Your task to perform on an android device: Open Yahoo.com Image 0: 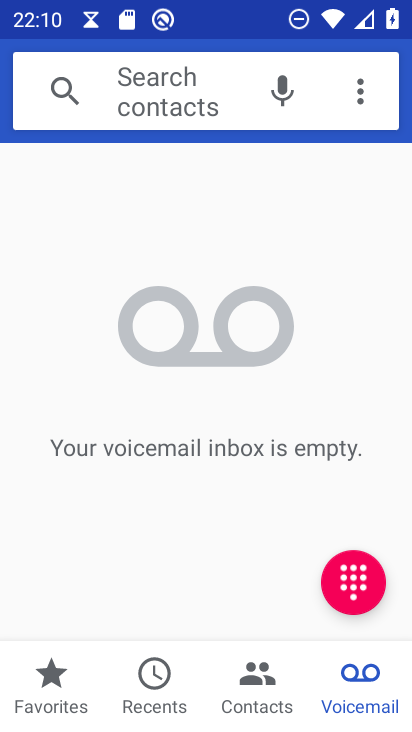
Step 0: press home button
Your task to perform on an android device: Open Yahoo.com Image 1: 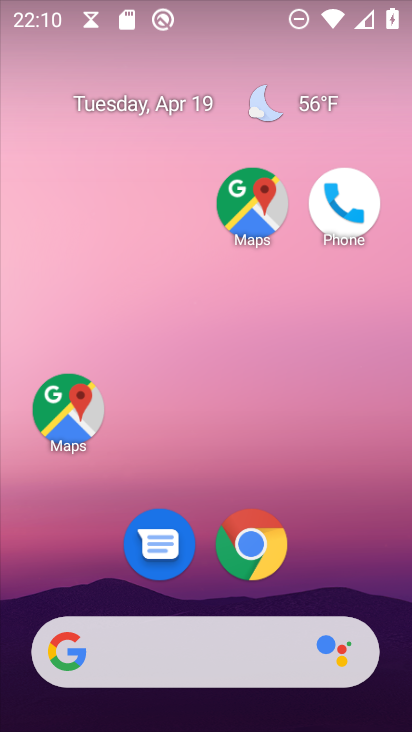
Step 1: drag from (183, 637) to (355, 41)
Your task to perform on an android device: Open Yahoo.com Image 2: 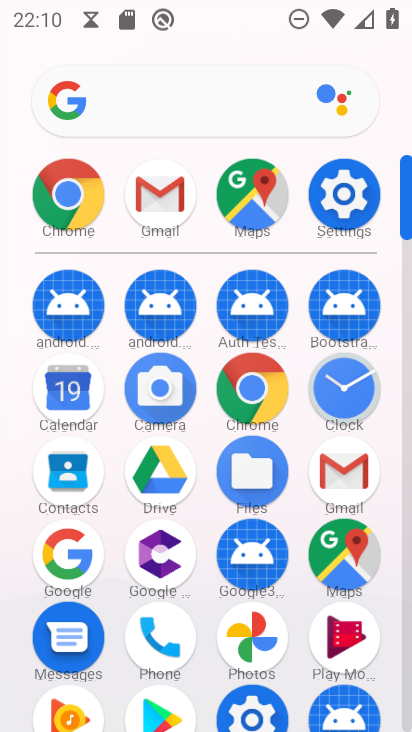
Step 2: click (65, 208)
Your task to perform on an android device: Open Yahoo.com Image 3: 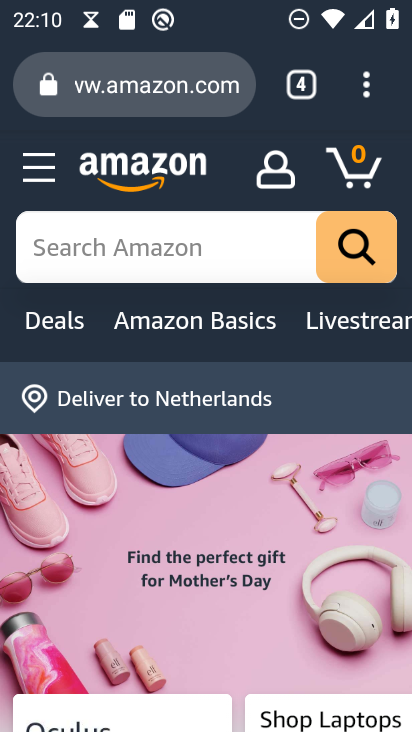
Step 3: click (367, 90)
Your task to perform on an android device: Open Yahoo.com Image 4: 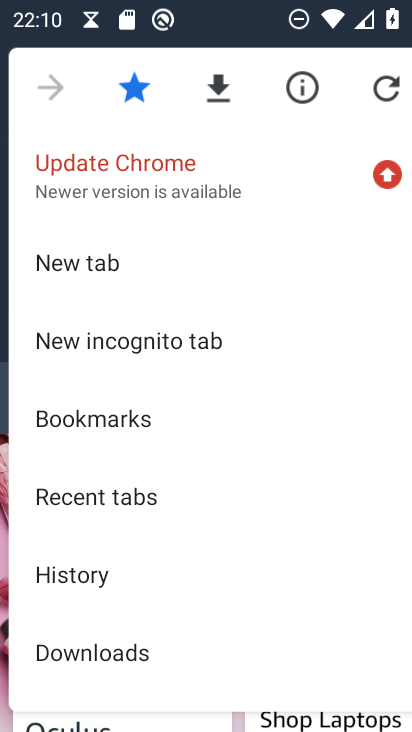
Step 4: click (101, 264)
Your task to perform on an android device: Open Yahoo.com Image 5: 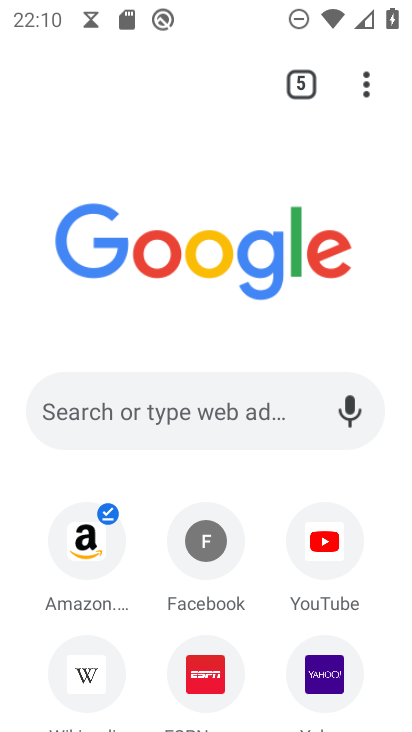
Step 5: drag from (119, 597) to (294, 96)
Your task to perform on an android device: Open Yahoo.com Image 6: 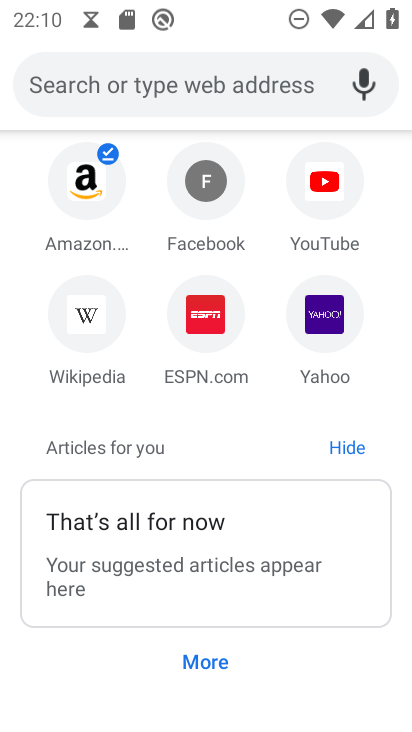
Step 6: click (324, 324)
Your task to perform on an android device: Open Yahoo.com Image 7: 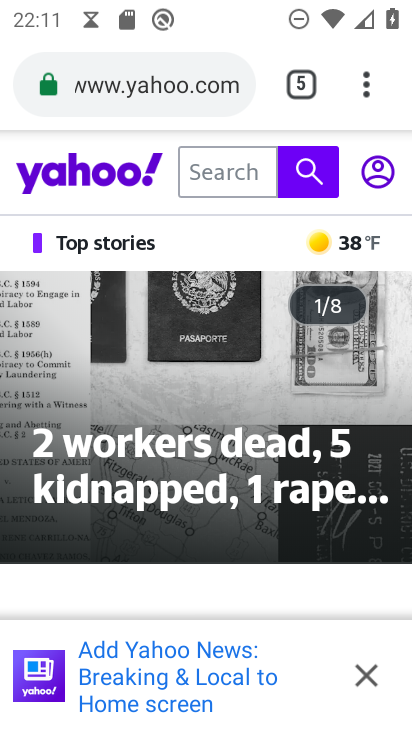
Step 7: task complete